Your task to perform on an android device: delete the emails in spam in the gmail app Image 0: 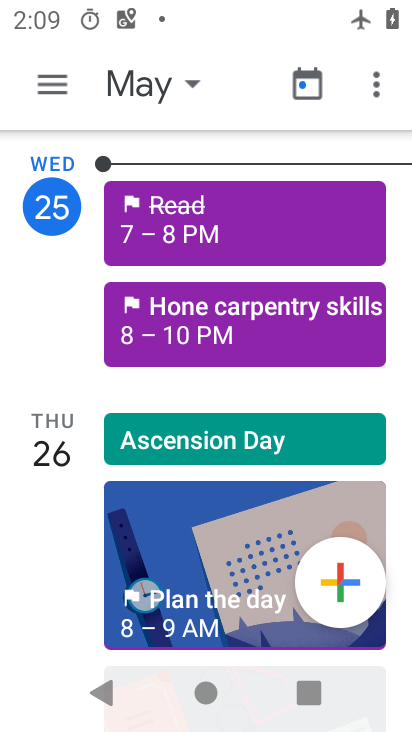
Step 0: press home button
Your task to perform on an android device: delete the emails in spam in the gmail app Image 1: 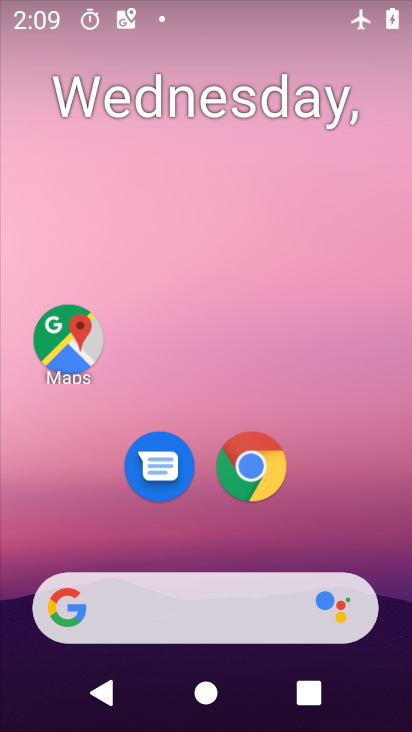
Step 1: drag from (346, 510) to (281, 125)
Your task to perform on an android device: delete the emails in spam in the gmail app Image 2: 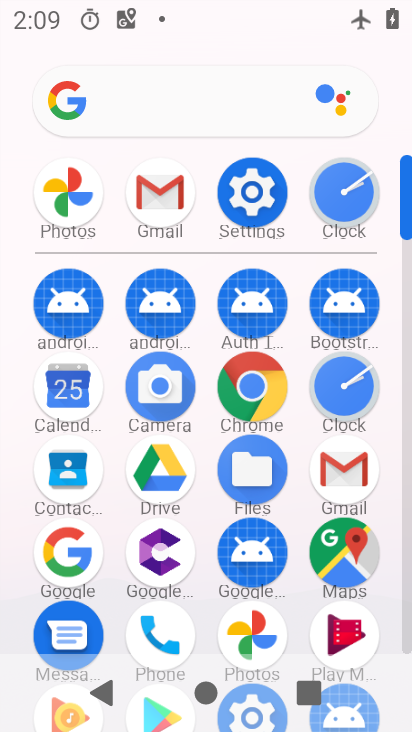
Step 2: click (170, 210)
Your task to perform on an android device: delete the emails in spam in the gmail app Image 3: 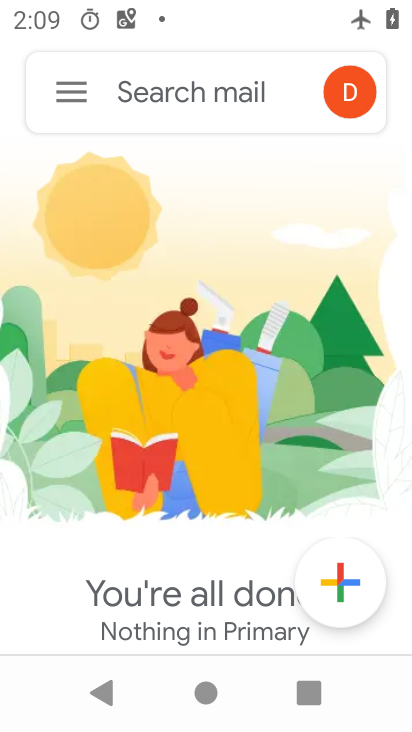
Step 3: click (84, 89)
Your task to perform on an android device: delete the emails in spam in the gmail app Image 4: 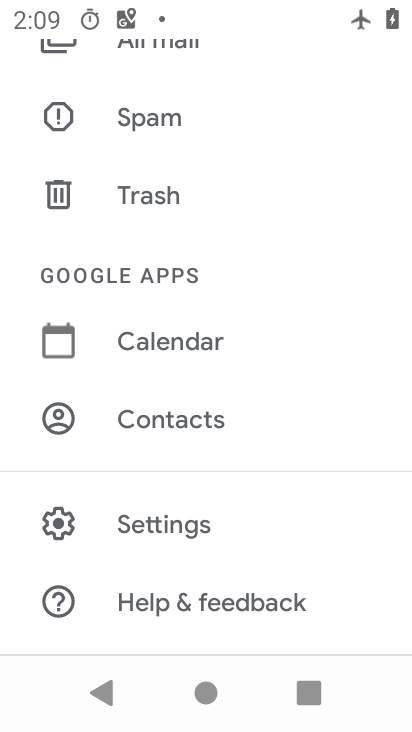
Step 4: click (99, 108)
Your task to perform on an android device: delete the emails in spam in the gmail app Image 5: 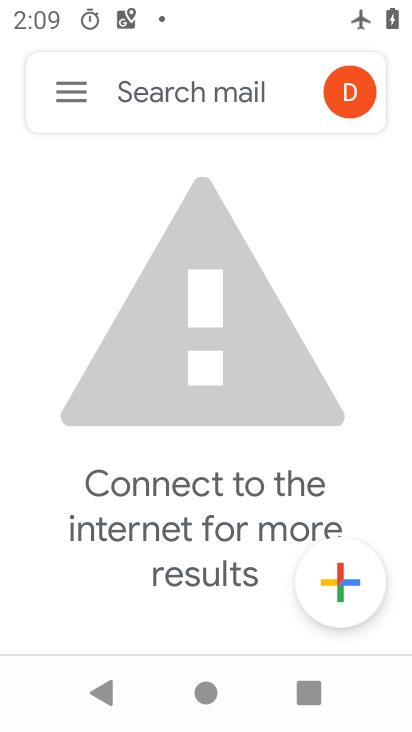
Step 5: click (57, 81)
Your task to perform on an android device: delete the emails in spam in the gmail app Image 6: 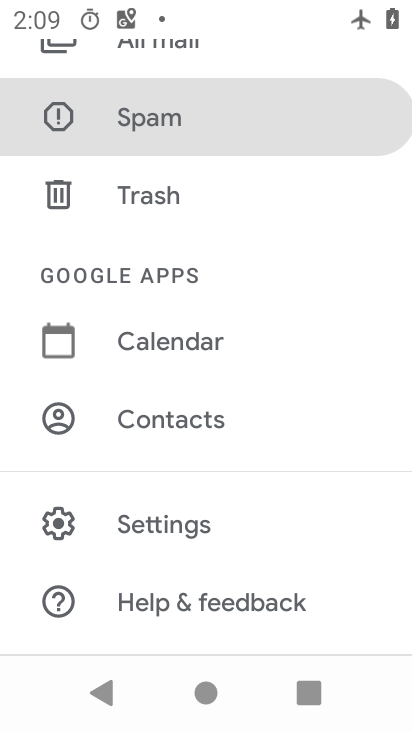
Step 6: task complete